Your task to perform on an android device: find photos in the google photos app Image 0: 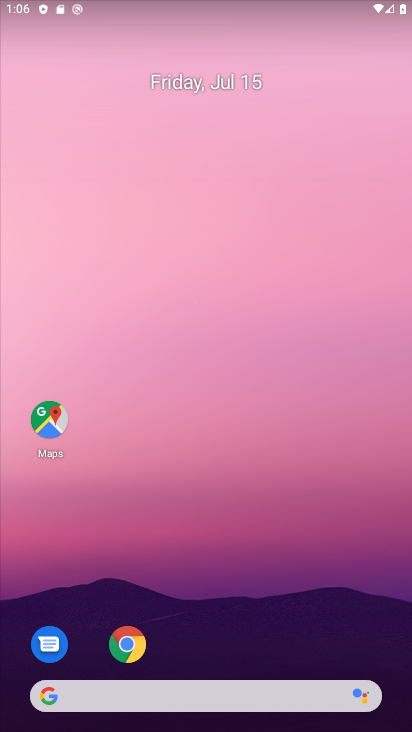
Step 0: press home button
Your task to perform on an android device: find photos in the google photos app Image 1: 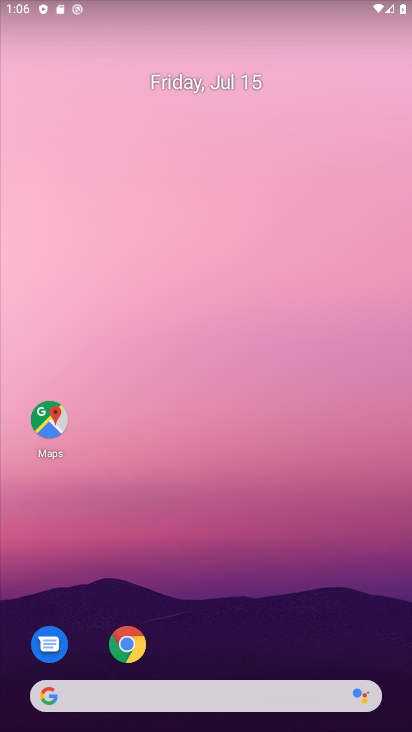
Step 1: drag from (397, 696) to (342, 21)
Your task to perform on an android device: find photos in the google photos app Image 2: 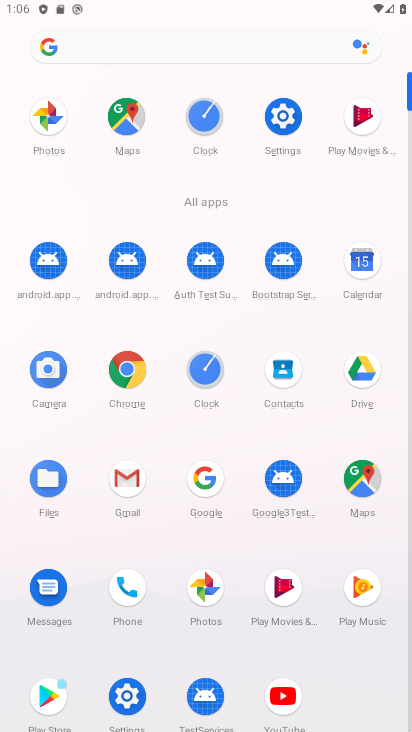
Step 2: click (203, 585)
Your task to perform on an android device: find photos in the google photos app Image 3: 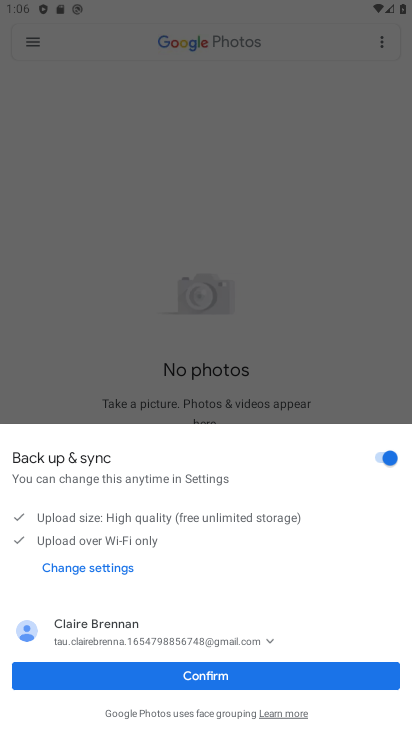
Step 3: click (206, 667)
Your task to perform on an android device: find photos in the google photos app Image 4: 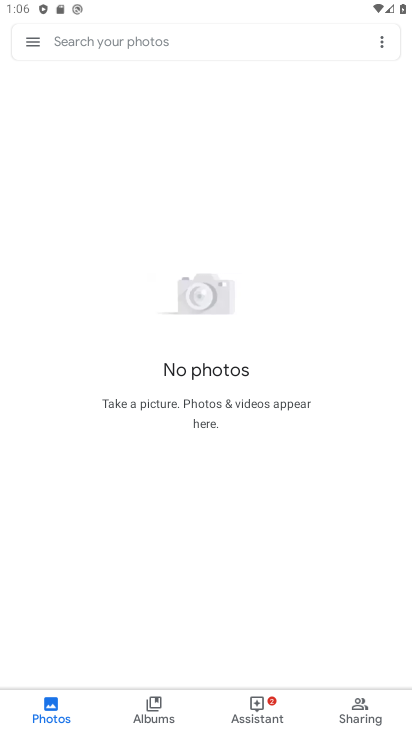
Step 4: task complete